Your task to perform on an android device: Open the calendar app, open the side menu, and click the "Day" option Image 0: 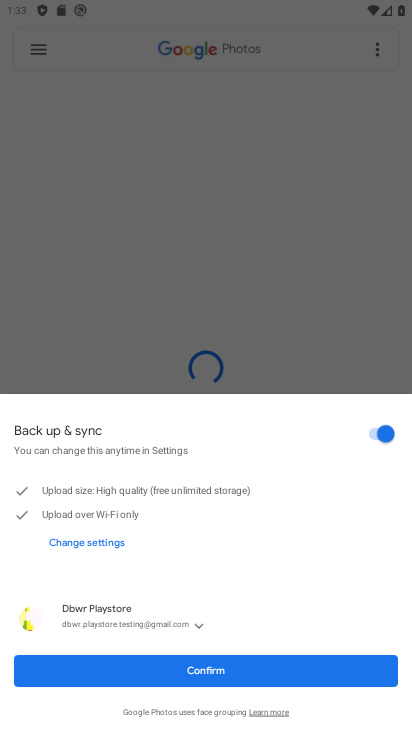
Step 0: press home button
Your task to perform on an android device: Open the calendar app, open the side menu, and click the "Day" option Image 1: 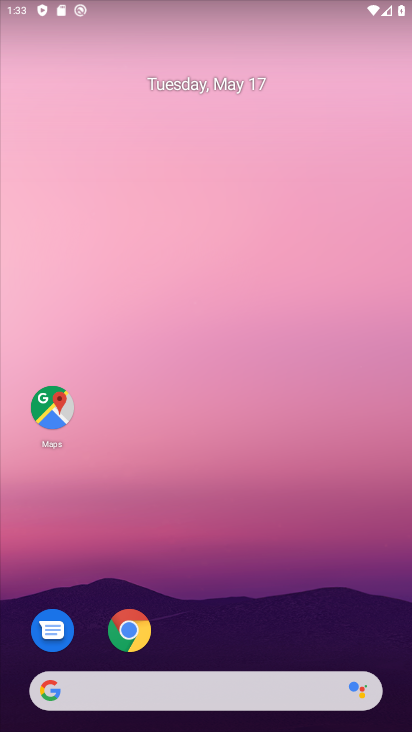
Step 1: drag from (333, 601) to (316, 146)
Your task to perform on an android device: Open the calendar app, open the side menu, and click the "Day" option Image 2: 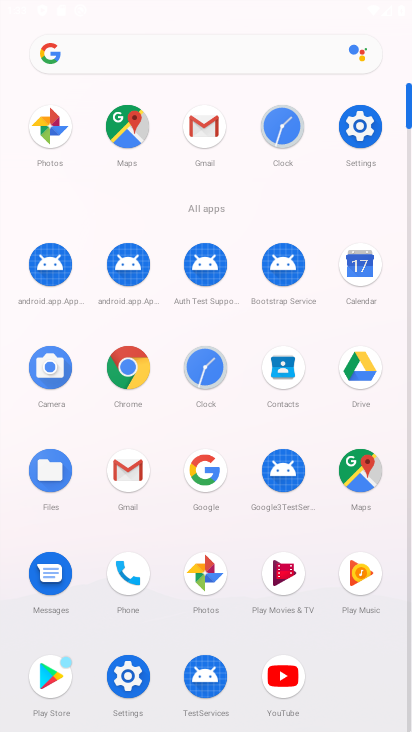
Step 2: click (346, 132)
Your task to perform on an android device: Open the calendar app, open the side menu, and click the "Day" option Image 3: 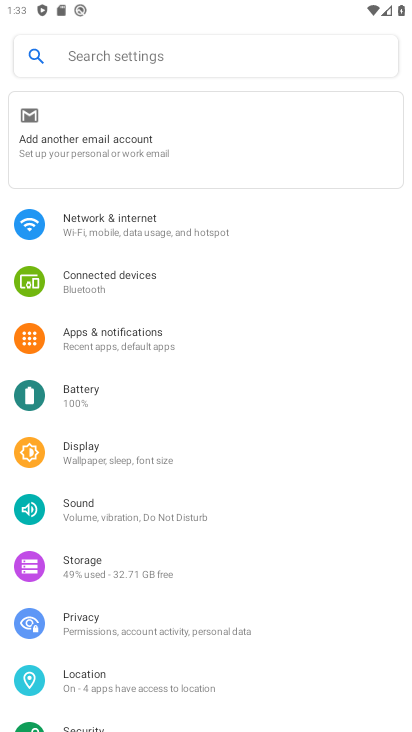
Step 3: press home button
Your task to perform on an android device: Open the calendar app, open the side menu, and click the "Day" option Image 4: 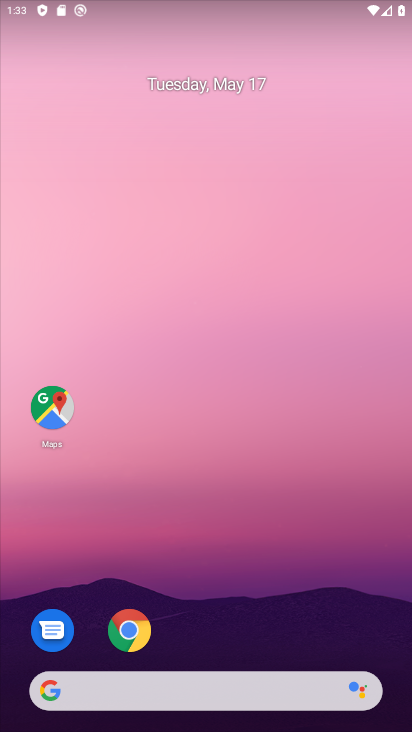
Step 4: drag from (348, 619) to (309, 203)
Your task to perform on an android device: Open the calendar app, open the side menu, and click the "Day" option Image 5: 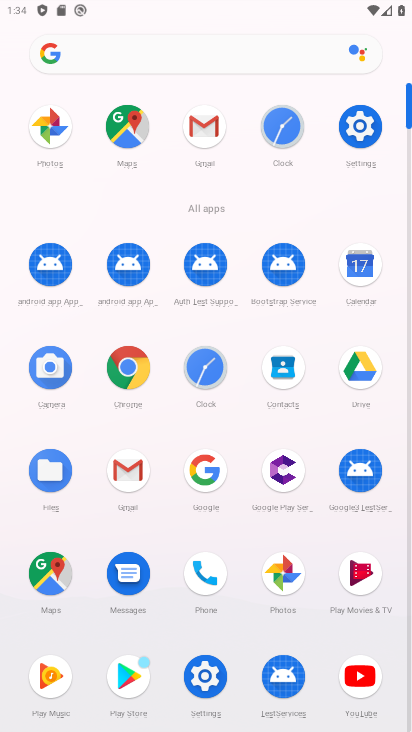
Step 5: click (360, 267)
Your task to perform on an android device: Open the calendar app, open the side menu, and click the "Day" option Image 6: 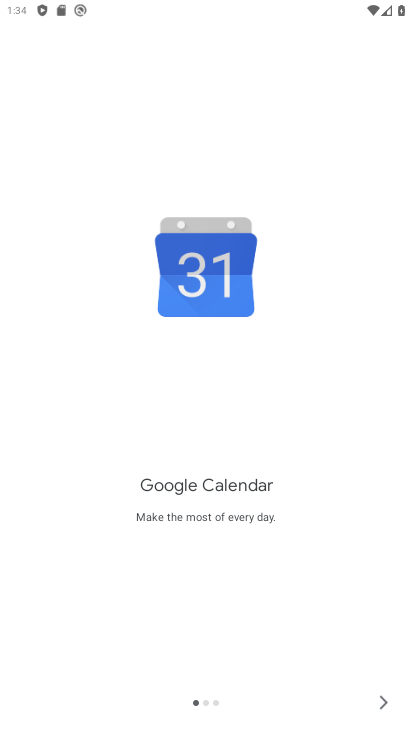
Step 6: click (387, 699)
Your task to perform on an android device: Open the calendar app, open the side menu, and click the "Day" option Image 7: 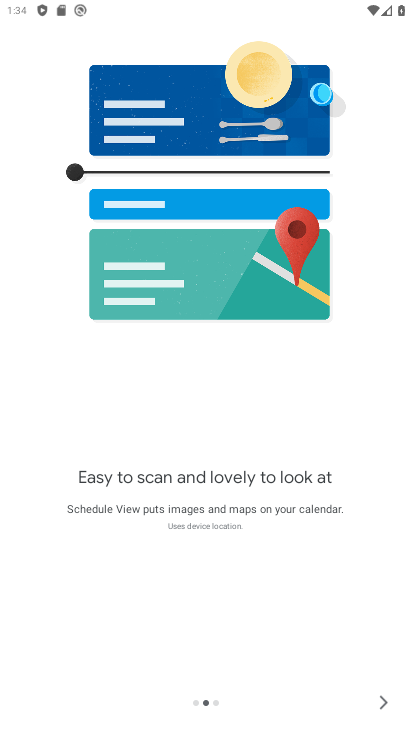
Step 7: click (388, 697)
Your task to perform on an android device: Open the calendar app, open the side menu, and click the "Day" option Image 8: 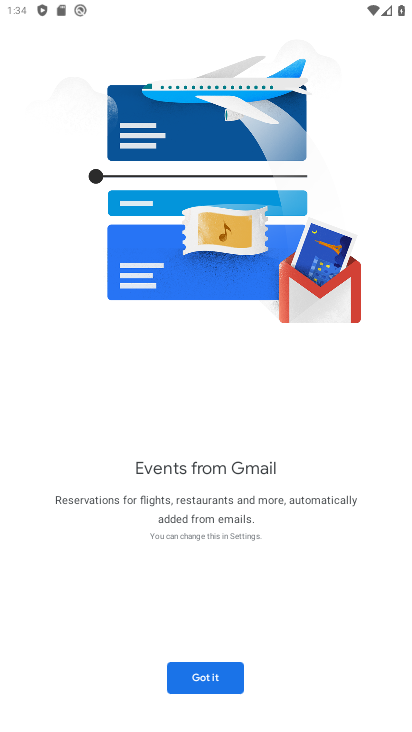
Step 8: click (223, 689)
Your task to perform on an android device: Open the calendar app, open the side menu, and click the "Day" option Image 9: 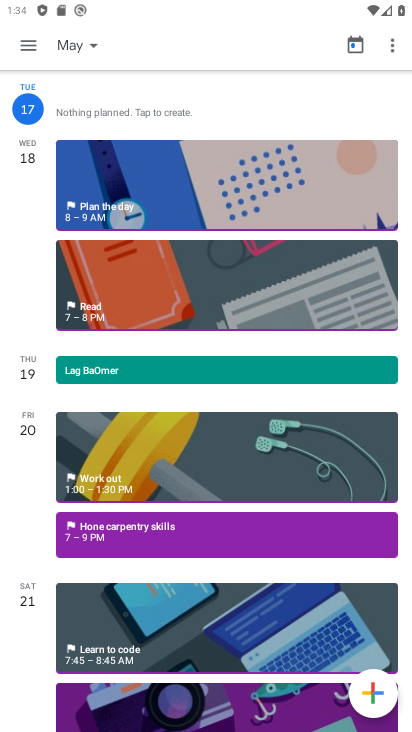
Step 9: click (29, 43)
Your task to perform on an android device: Open the calendar app, open the side menu, and click the "Day" option Image 10: 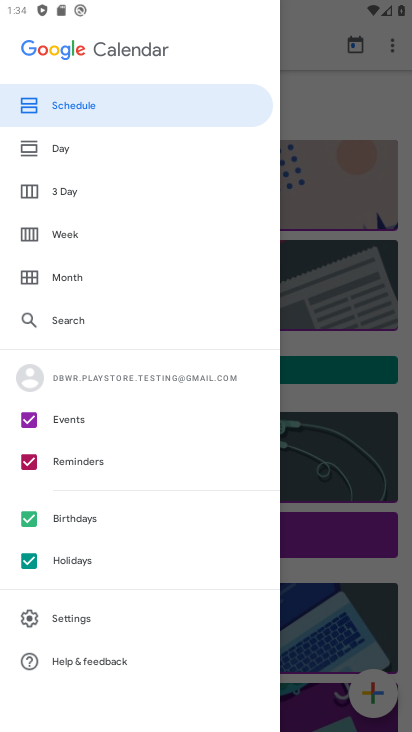
Step 10: click (59, 155)
Your task to perform on an android device: Open the calendar app, open the side menu, and click the "Day" option Image 11: 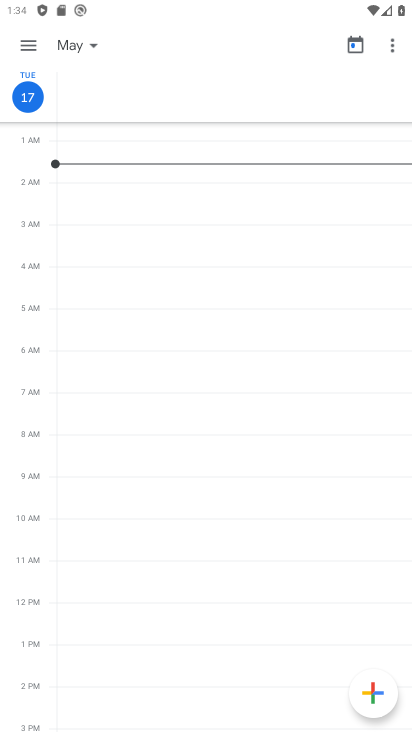
Step 11: task complete